Your task to perform on an android device: turn on wifi Image 0: 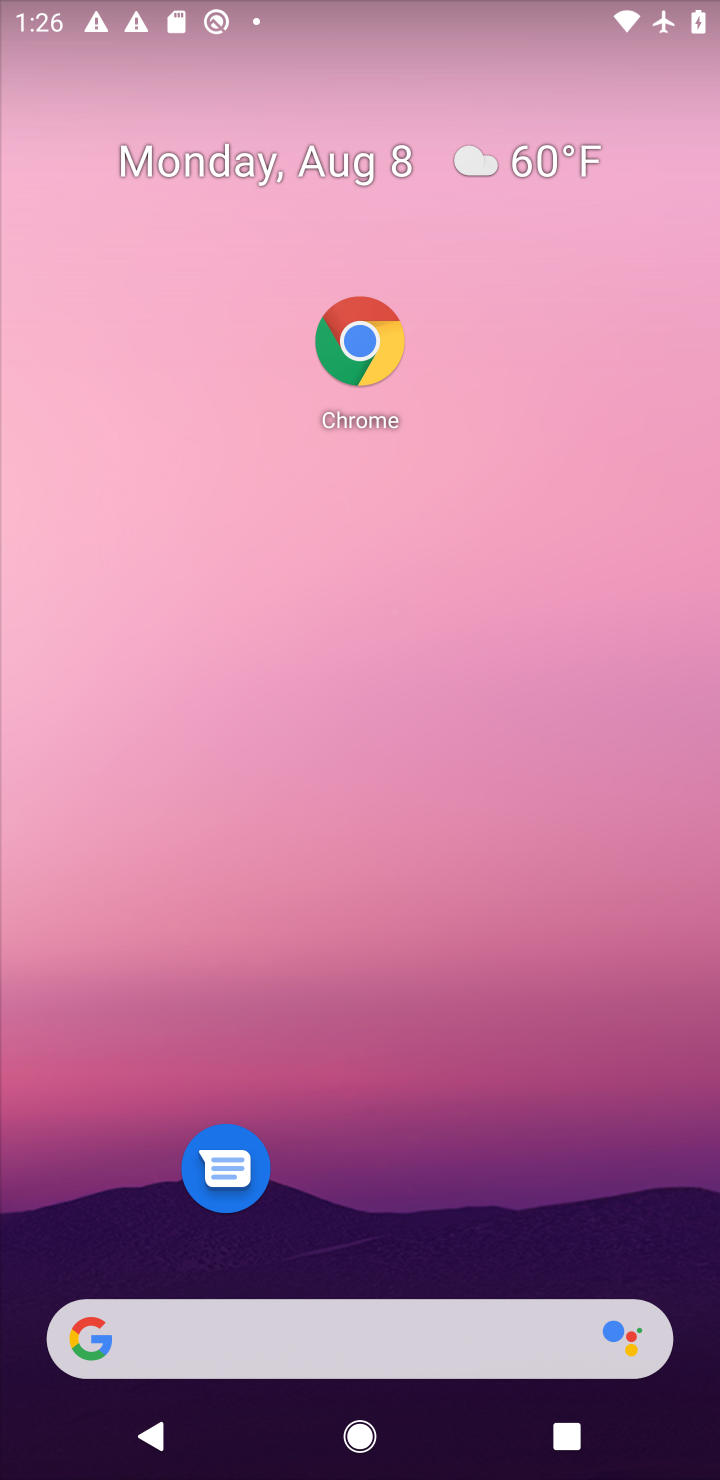
Step 0: drag from (471, 1214) to (466, 17)
Your task to perform on an android device: turn on wifi Image 1: 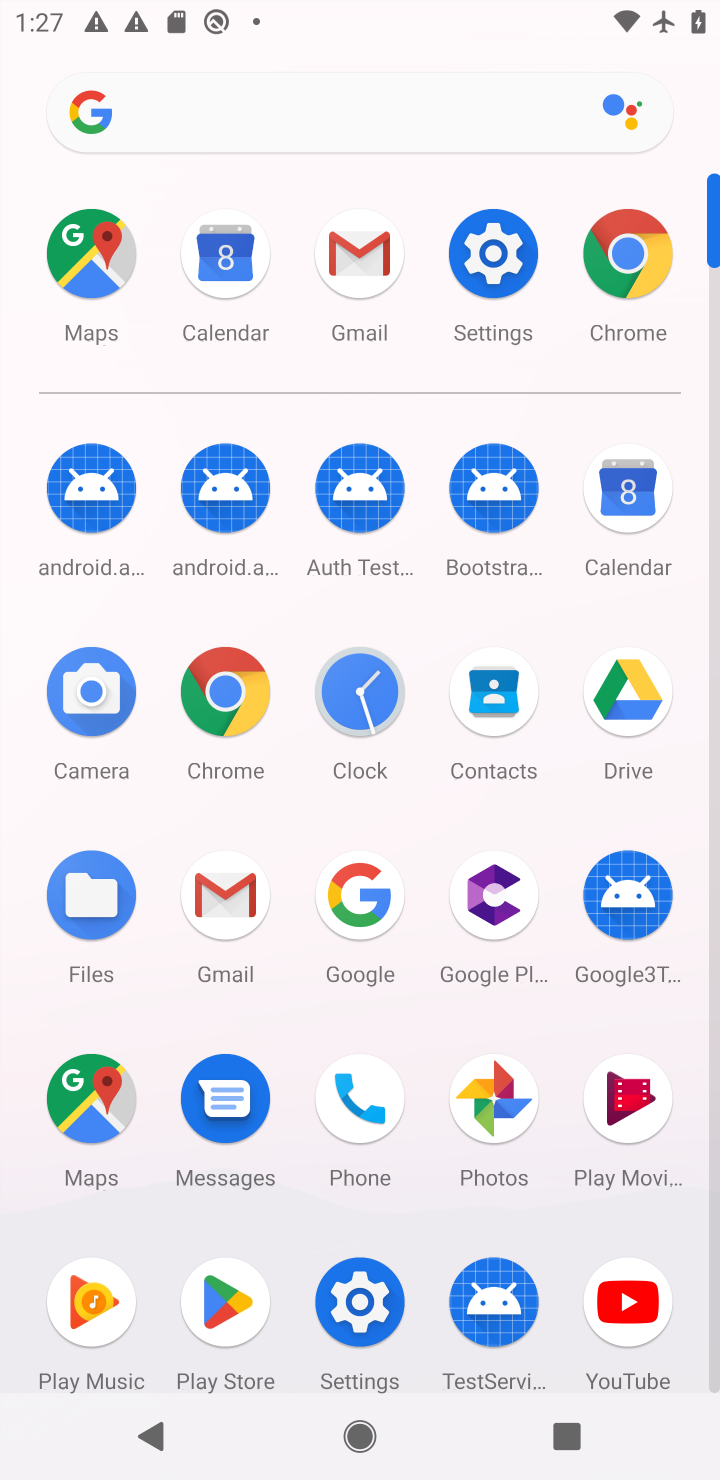
Step 1: click (465, 253)
Your task to perform on an android device: turn on wifi Image 2: 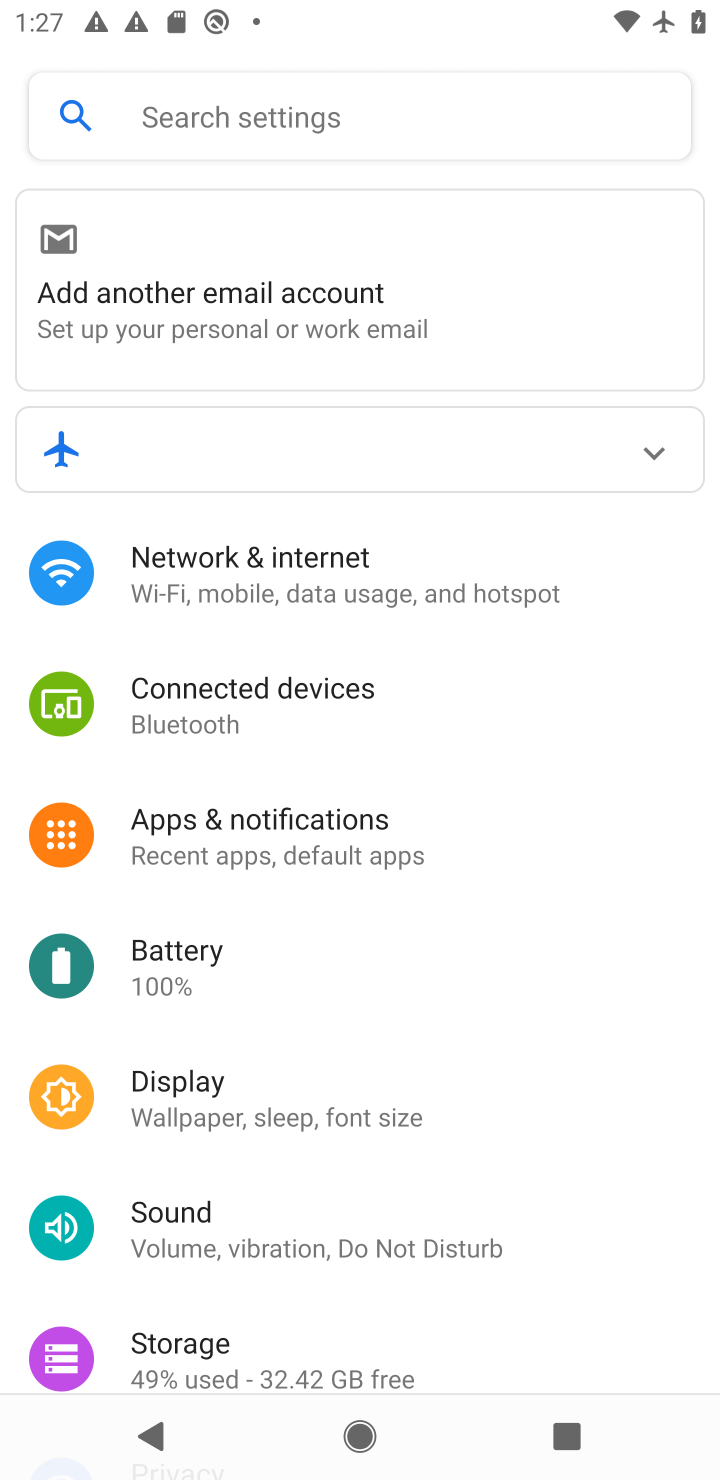
Step 2: click (299, 534)
Your task to perform on an android device: turn on wifi Image 3: 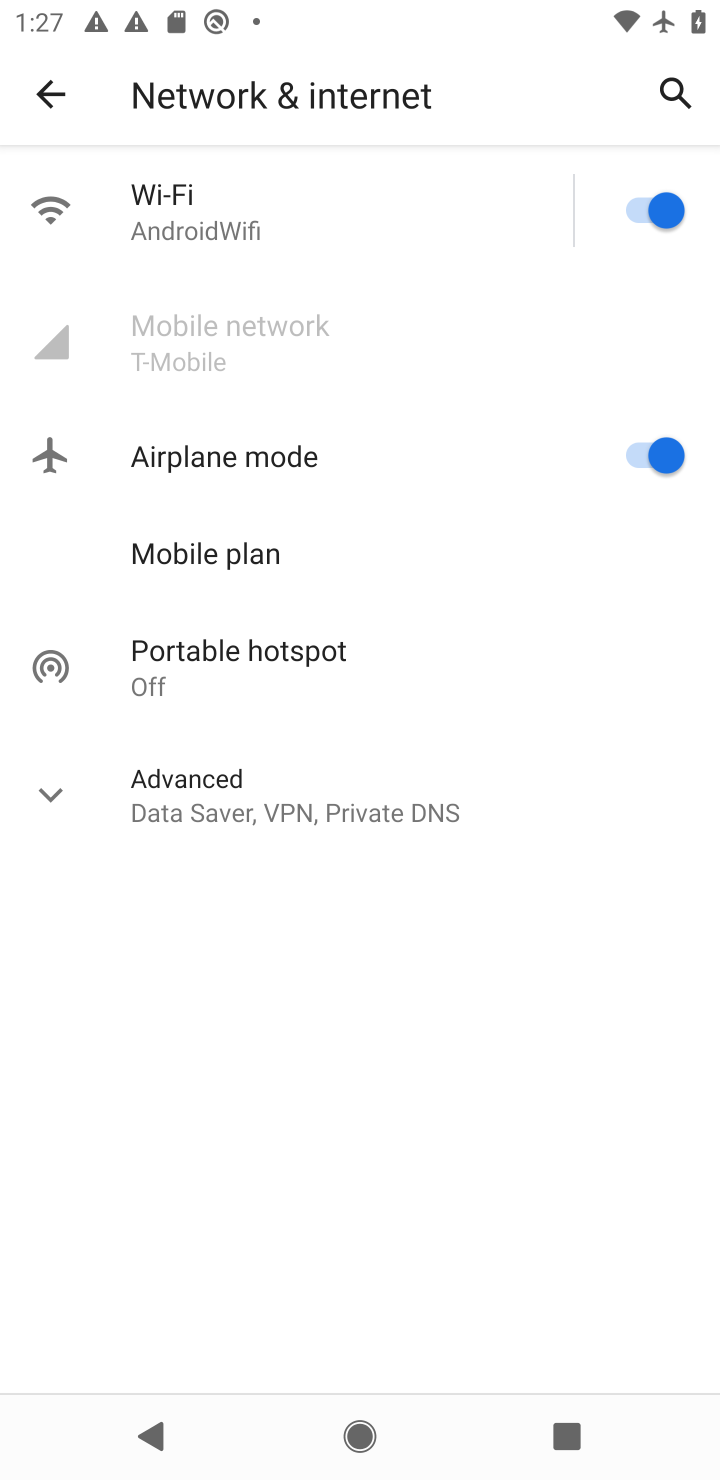
Step 3: task complete